Your task to perform on an android device: see sites visited before in the chrome app Image 0: 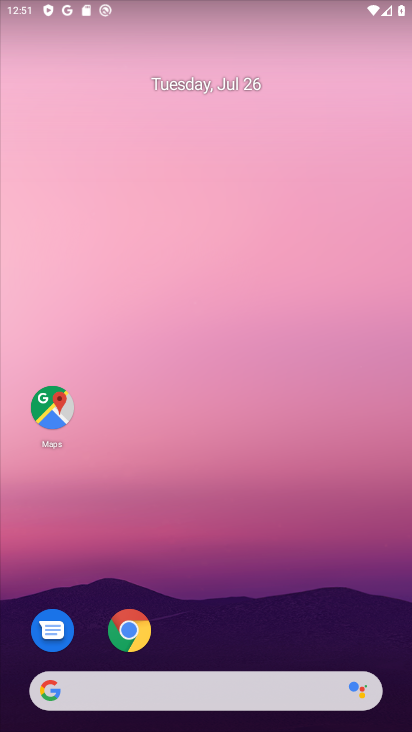
Step 0: click (121, 628)
Your task to perform on an android device: see sites visited before in the chrome app Image 1: 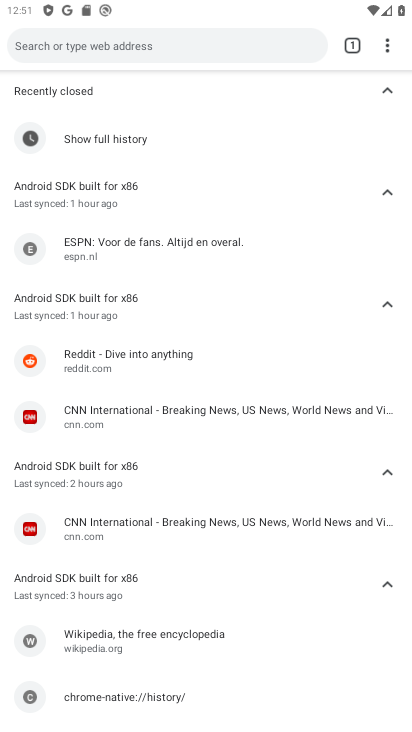
Step 1: click (384, 43)
Your task to perform on an android device: see sites visited before in the chrome app Image 2: 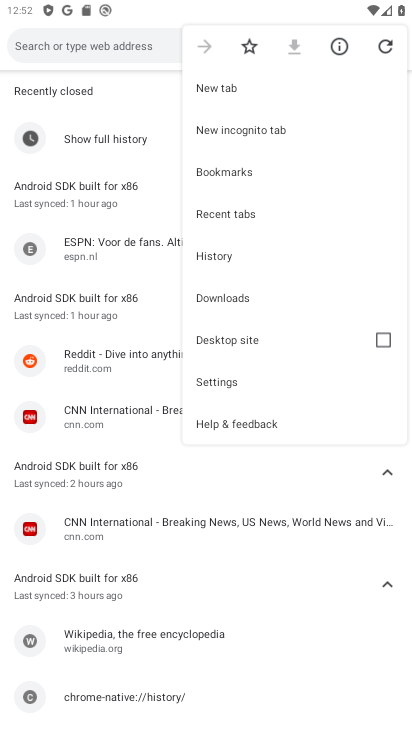
Step 2: click (219, 255)
Your task to perform on an android device: see sites visited before in the chrome app Image 3: 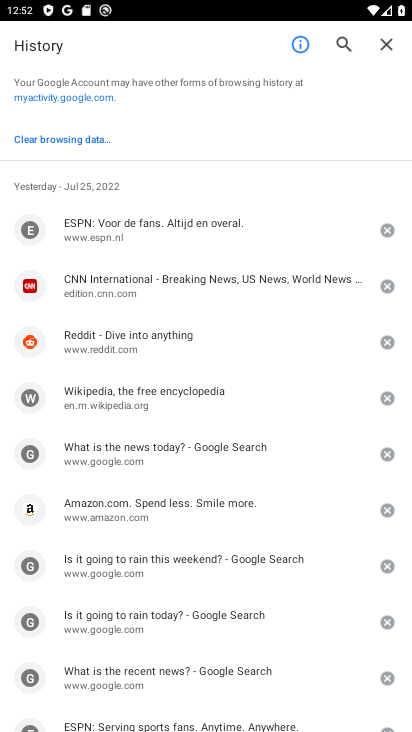
Step 3: task complete